Your task to perform on an android device: Go to calendar. Show me events next week Image 0: 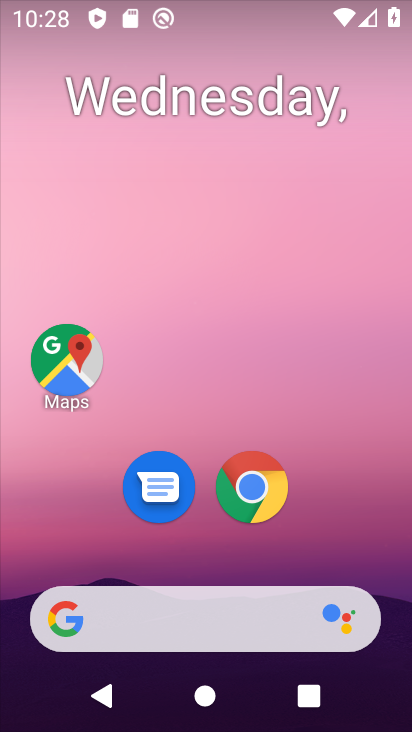
Step 0: drag from (274, 549) to (302, 154)
Your task to perform on an android device: Go to calendar. Show me events next week Image 1: 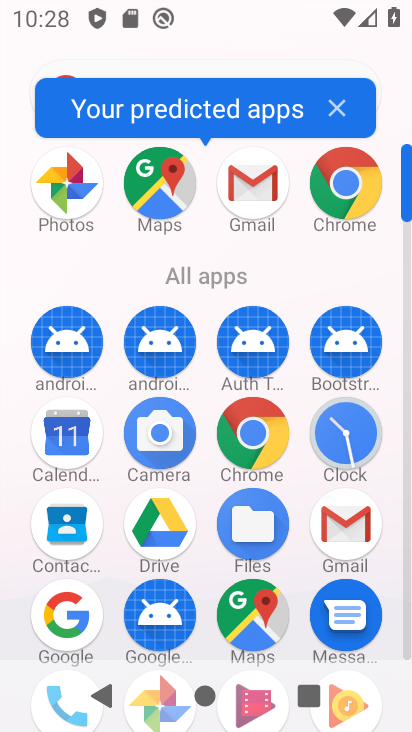
Step 1: click (48, 445)
Your task to perform on an android device: Go to calendar. Show me events next week Image 2: 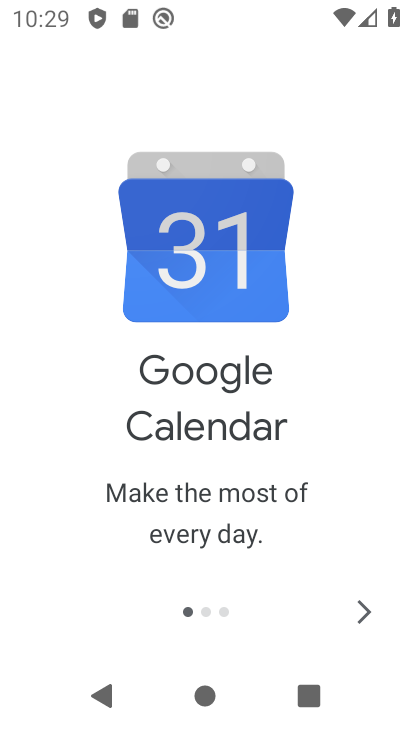
Step 2: click (369, 619)
Your task to perform on an android device: Go to calendar. Show me events next week Image 3: 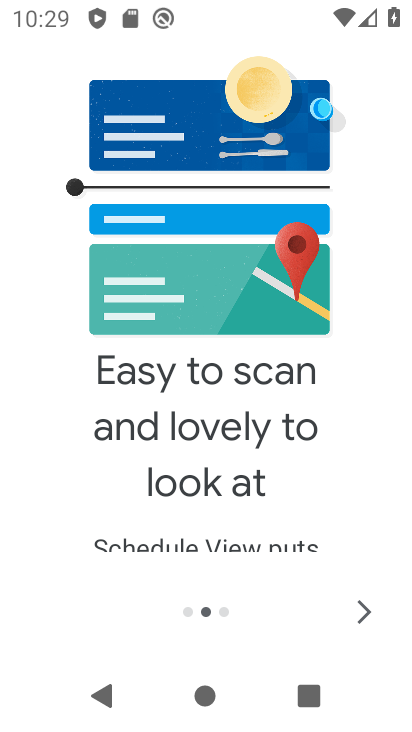
Step 3: click (357, 616)
Your task to perform on an android device: Go to calendar. Show me events next week Image 4: 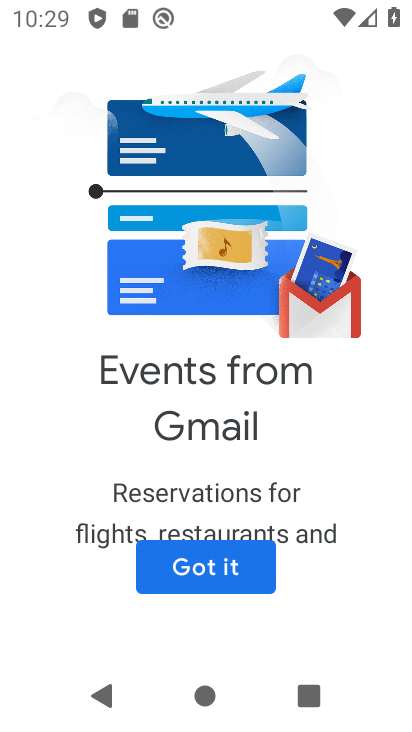
Step 4: click (203, 573)
Your task to perform on an android device: Go to calendar. Show me events next week Image 5: 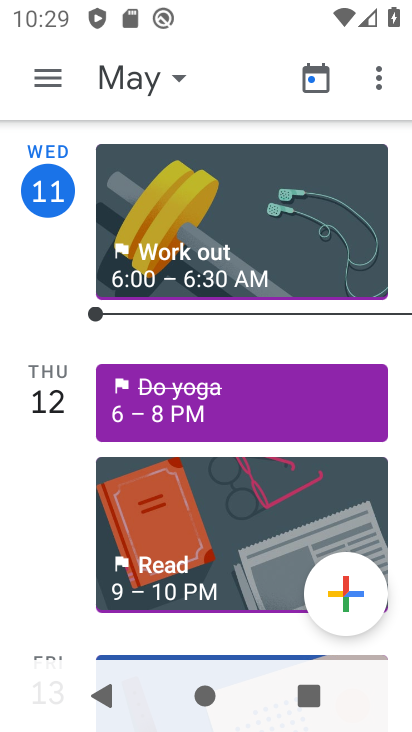
Step 5: click (136, 75)
Your task to perform on an android device: Go to calendar. Show me events next week Image 6: 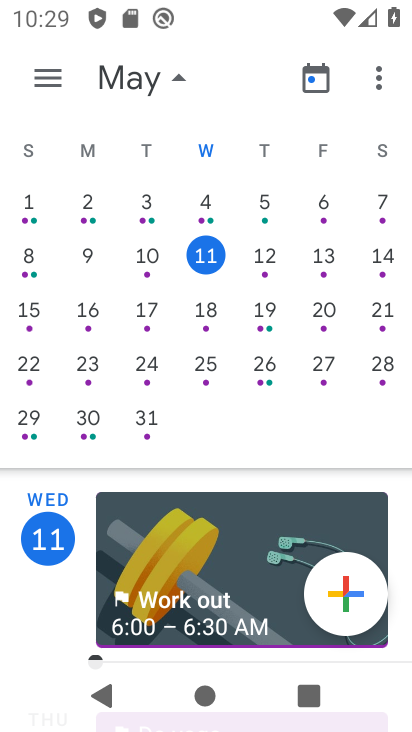
Step 6: click (27, 318)
Your task to perform on an android device: Go to calendar. Show me events next week Image 7: 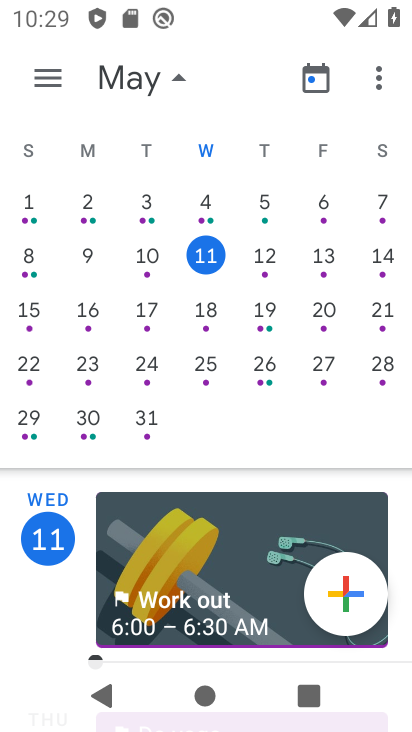
Step 7: click (95, 323)
Your task to perform on an android device: Go to calendar. Show me events next week Image 8: 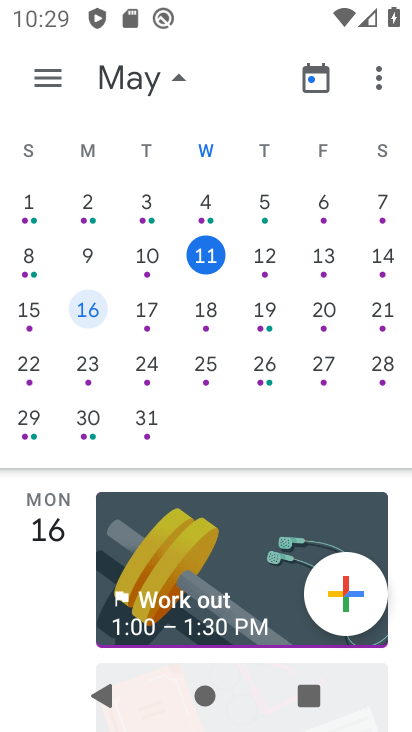
Step 8: click (155, 317)
Your task to perform on an android device: Go to calendar. Show me events next week Image 9: 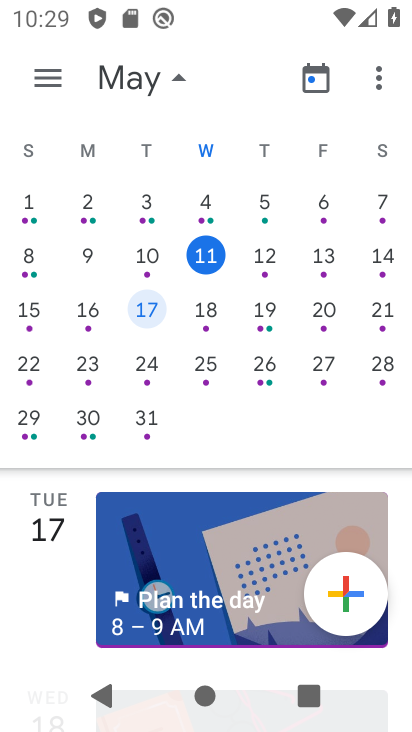
Step 9: click (224, 321)
Your task to perform on an android device: Go to calendar. Show me events next week Image 10: 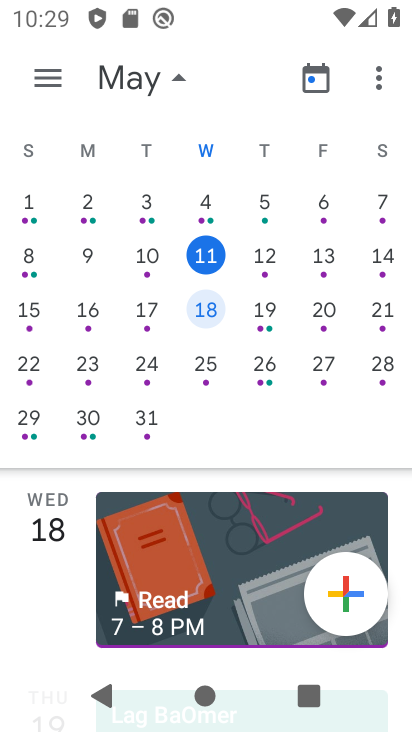
Step 10: click (264, 329)
Your task to perform on an android device: Go to calendar. Show me events next week Image 11: 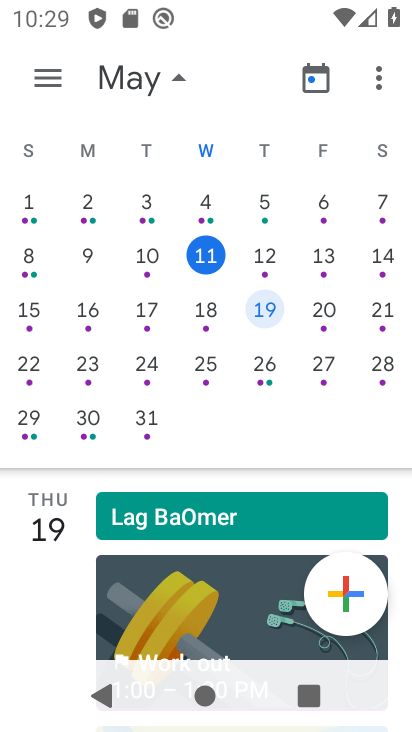
Step 11: click (310, 326)
Your task to perform on an android device: Go to calendar. Show me events next week Image 12: 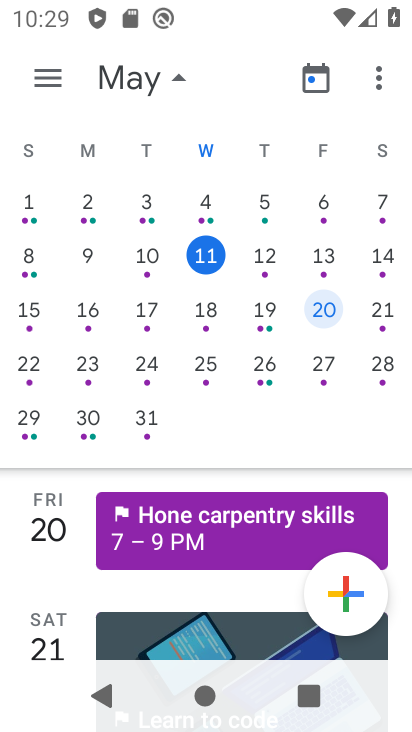
Step 12: click (376, 320)
Your task to perform on an android device: Go to calendar. Show me events next week Image 13: 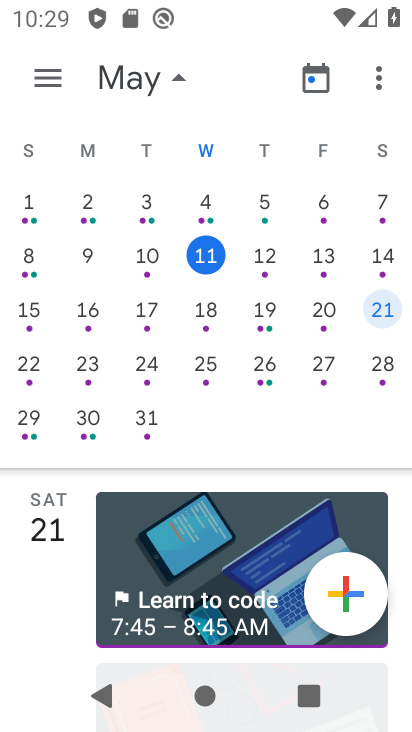
Step 13: task complete